Your task to perform on an android device: remove spam from my inbox in the gmail app Image 0: 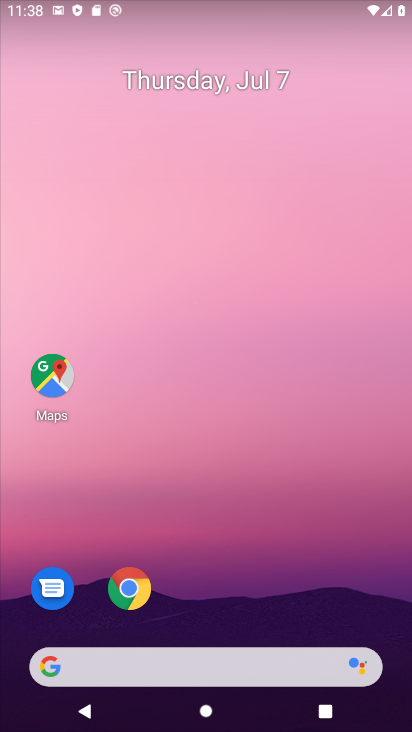
Step 0: drag from (225, 447) to (247, 180)
Your task to perform on an android device: remove spam from my inbox in the gmail app Image 1: 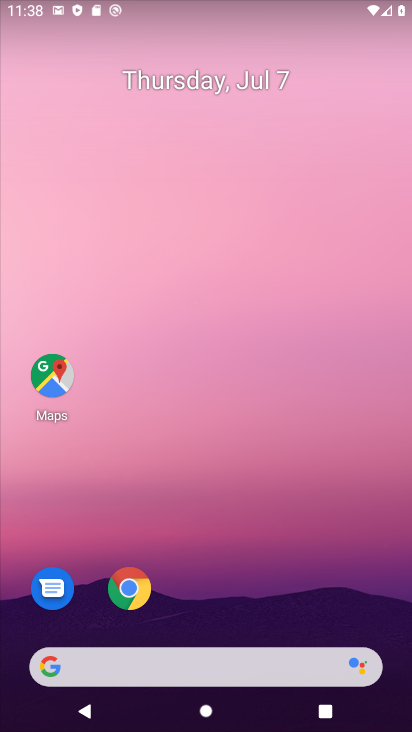
Step 1: drag from (192, 396) to (146, 198)
Your task to perform on an android device: remove spam from my inbox in the gmail app Image 2: 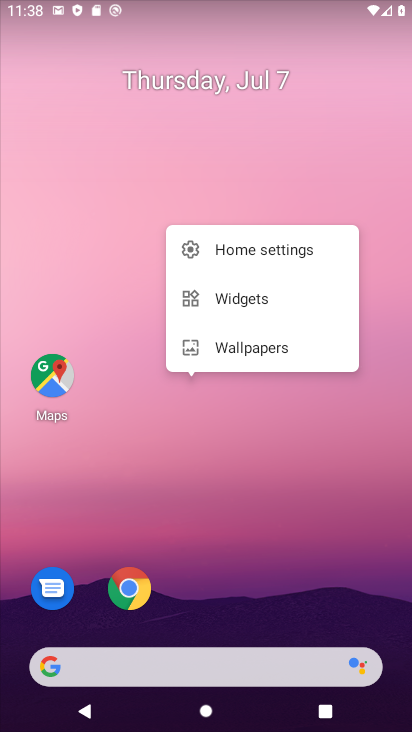
Step 2: drag from (273, 599) to (258, 140)
Your task to perform on an android device: remove spam from my inbox in the gmail app Image 3: 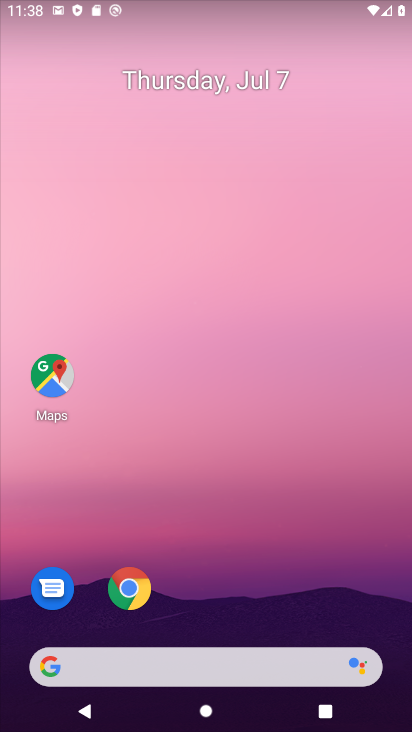
Step 3: drag from (179, 434) to (170, 5)
Your task to perform on an android device: remove spam from my inbox in the gmail app Image 4: 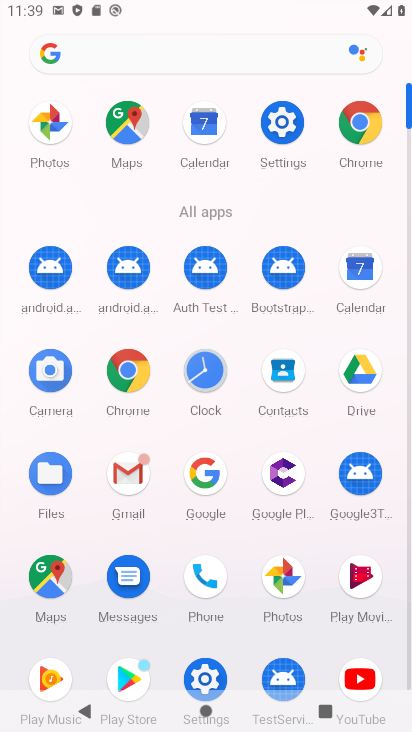
Step 4: click (129, 491)
Your task to perform on an android device: remove spam from my inbox in the gmail app Image 5: 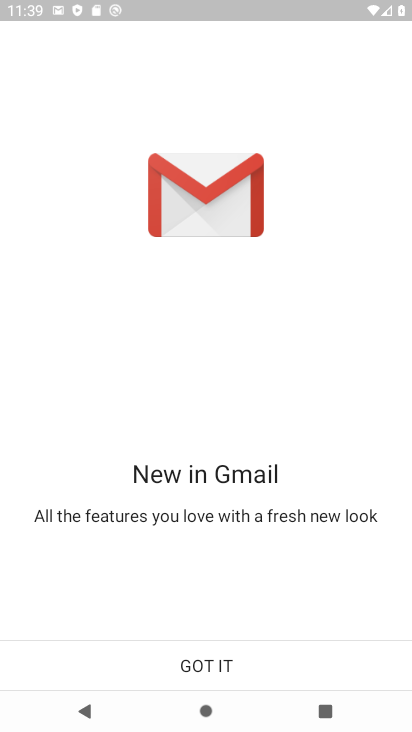
Step 5: click (230, 670)
Your task to perform on an android device: remove spam from my inbox in the gmail app Image 6: 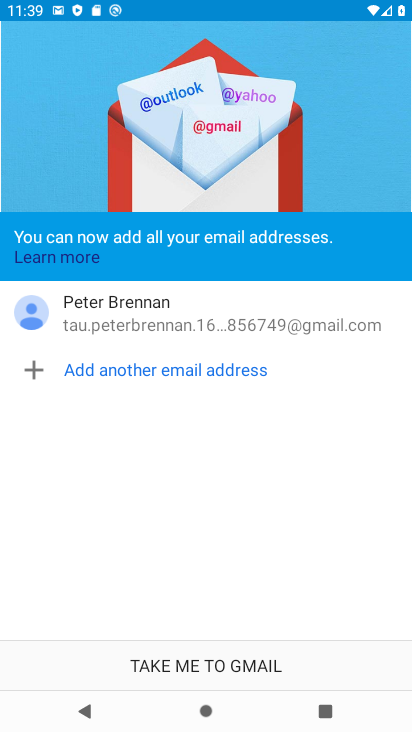
Step 6: click (230, 670)
Your task to perform on an android device: remove spam from my inbox in the gmail app Image 7: 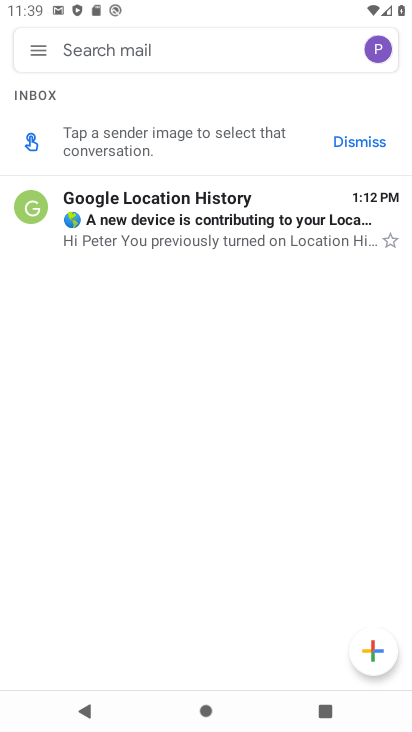
Step 7: click (40, 50)
Your task to perform on an android device: remove spam from my inbox in the gmail app Image 8: 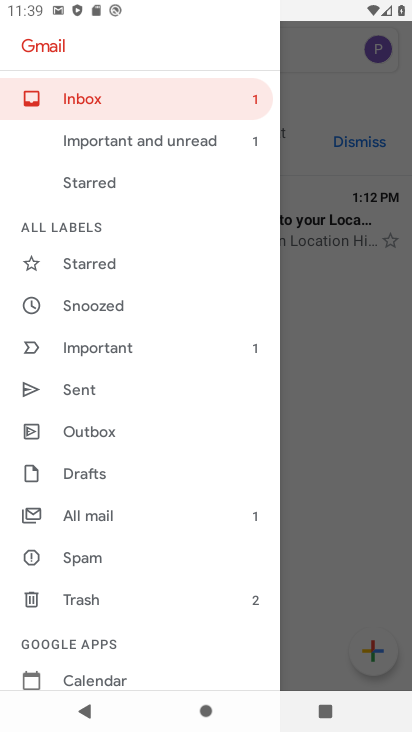
Step 8: click (93, 554)
Your task to perform on an android device: remove spam from my inbox in the gmail app Image 9: 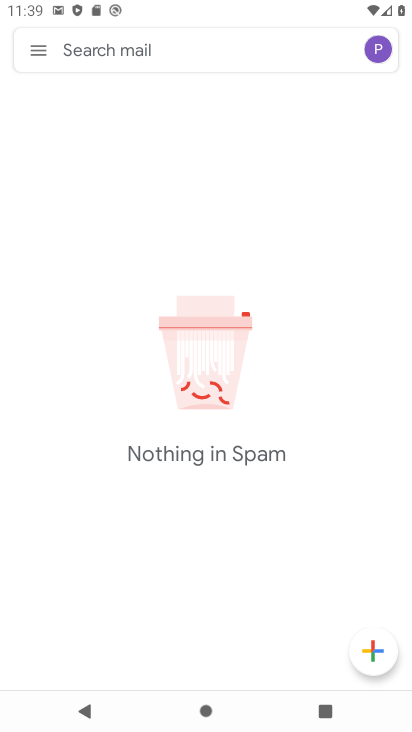
Step 9: task complete